Your task to perform on an android device: Open accessibility settings Image 0: 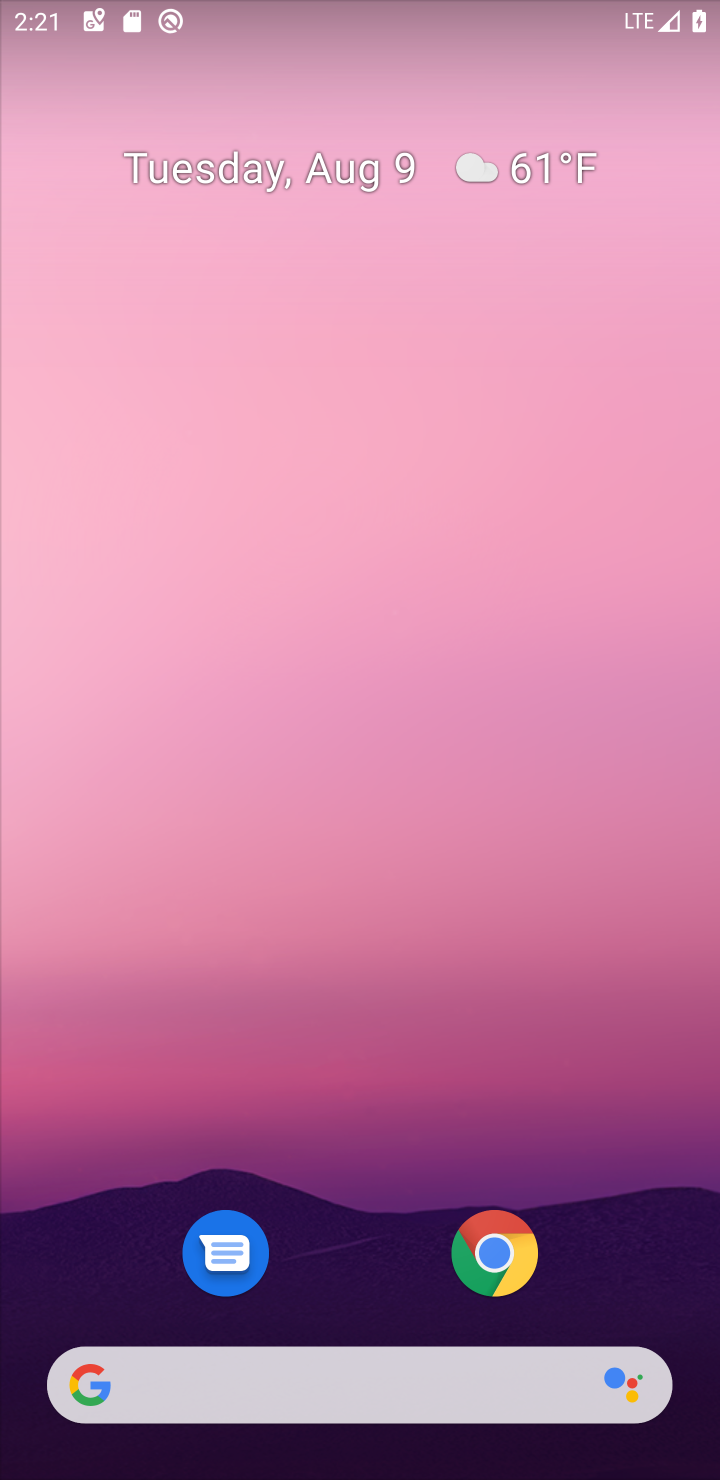
Step 0: drag from (637, 1067) to (318, 44)
Your task to perform on an android device: Open accessibility settings Image 1: 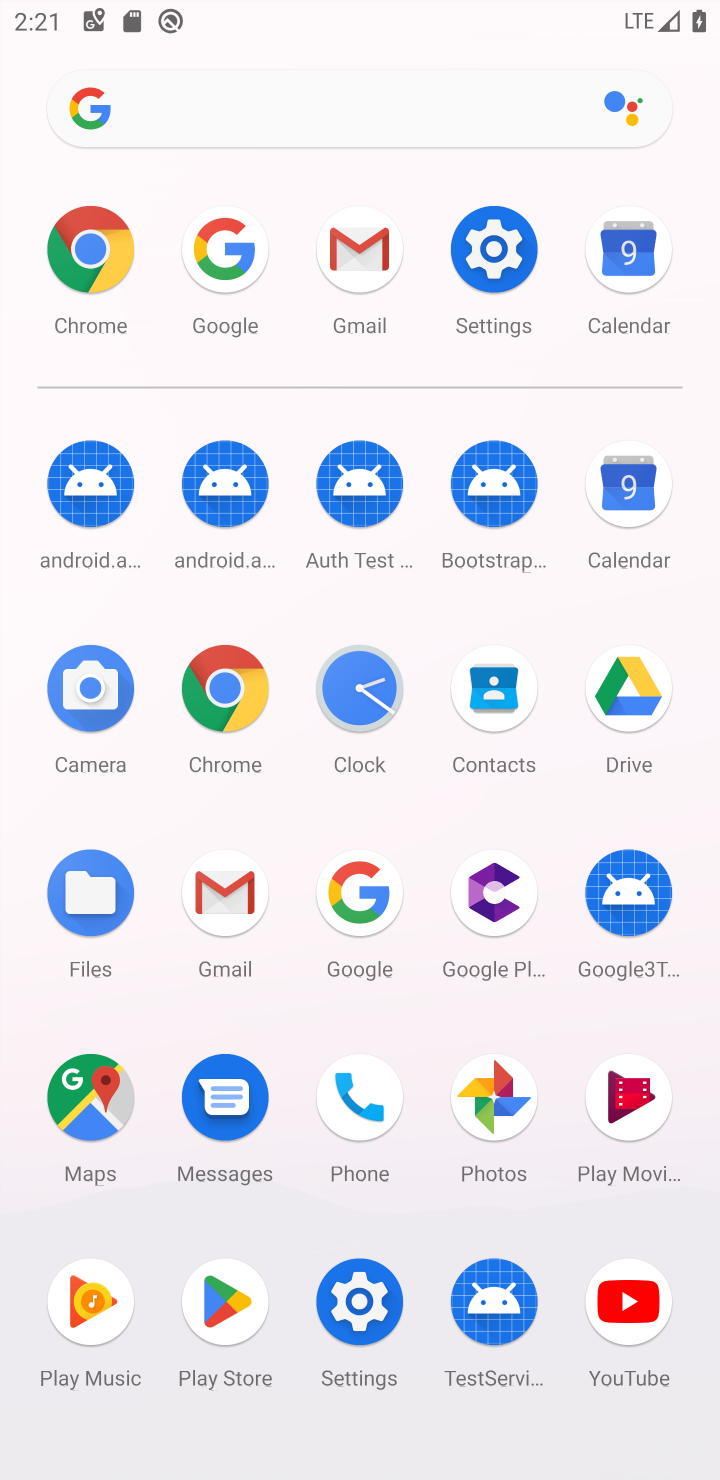
Step 1: click (361, 1316)
Your task to perform on an android device: Open accessibility settings Image 2: 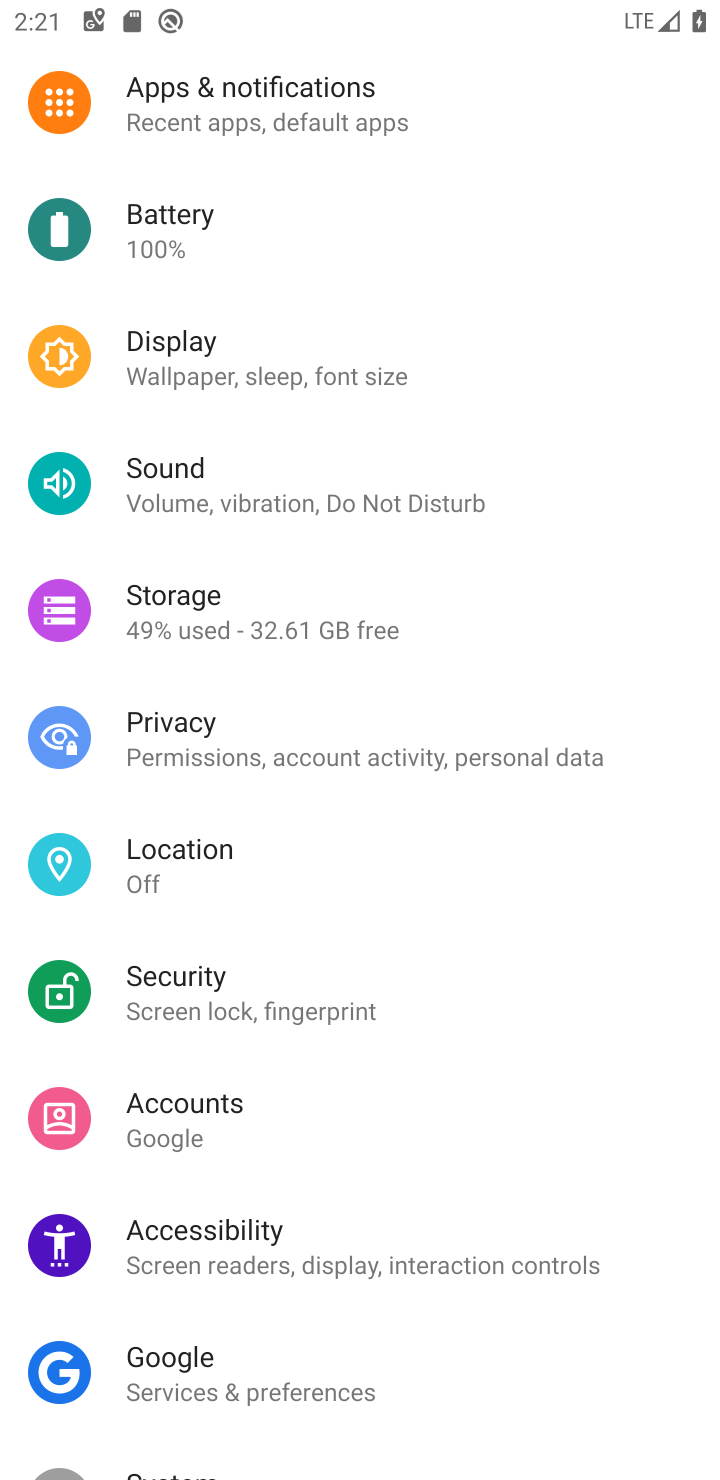
Step 2: click (168, 1264)
Your task to perform on an android device: Open accessibility settings Image 3: 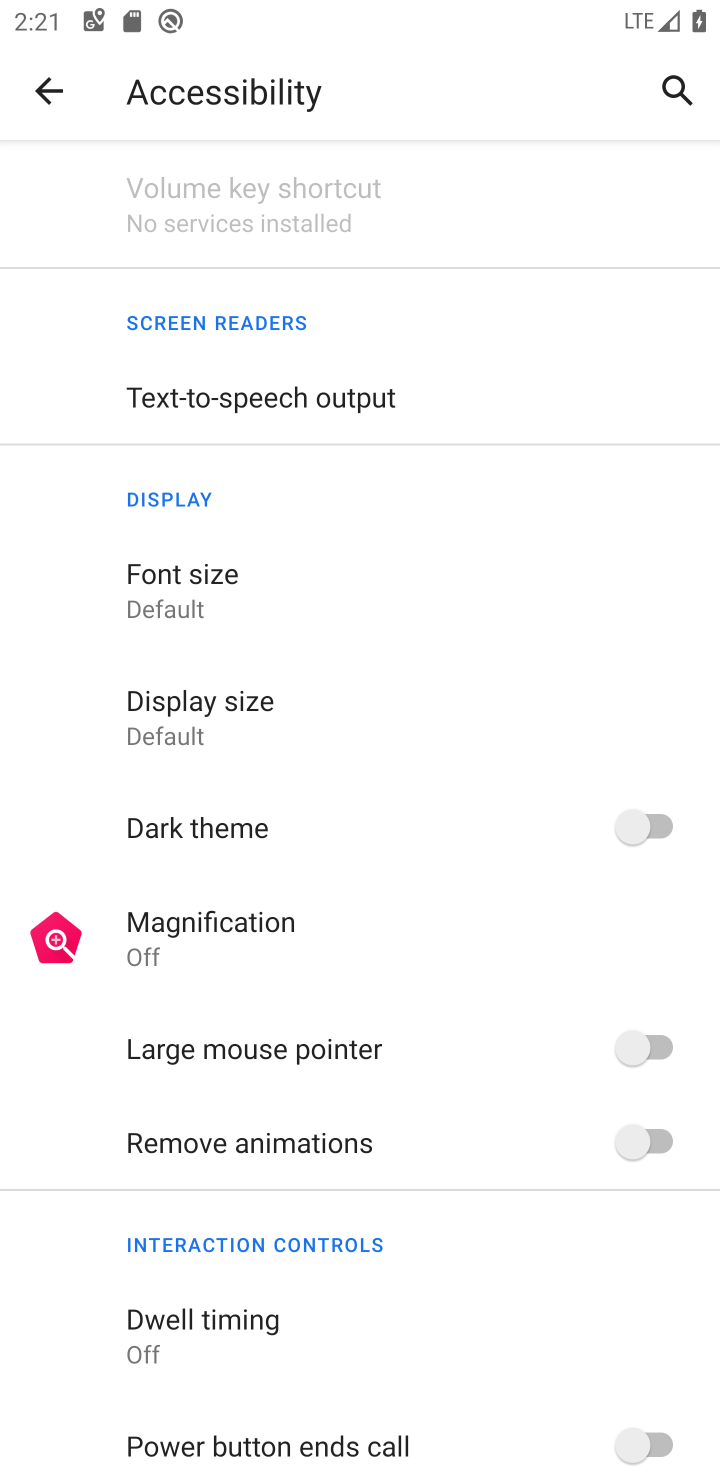
Step 3: task complete